Your task to perform on an android device: Go to settings Image 0: 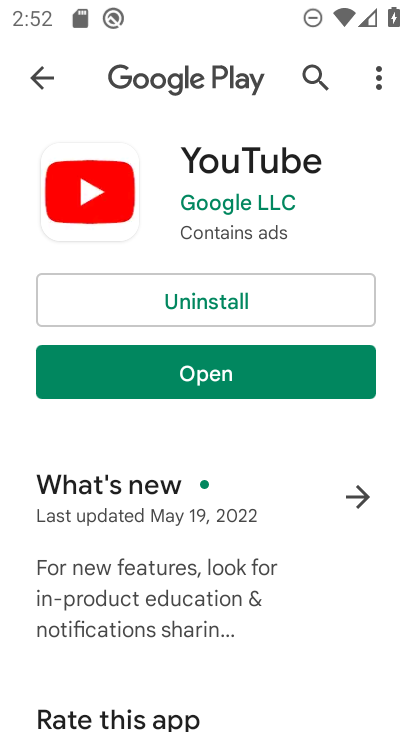
Step 0: press home button
Your task to perform on an android device: Go to settings Image 1: 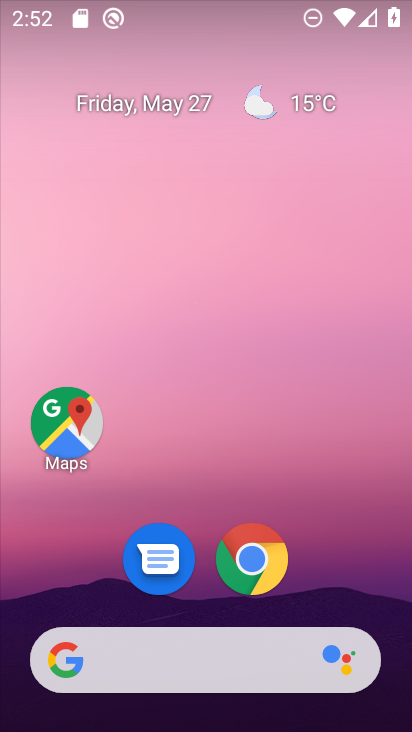
Step 1: drag from (164, 630) to (307, 13)
Your task to perform on an android device: Go to settings Image 2: 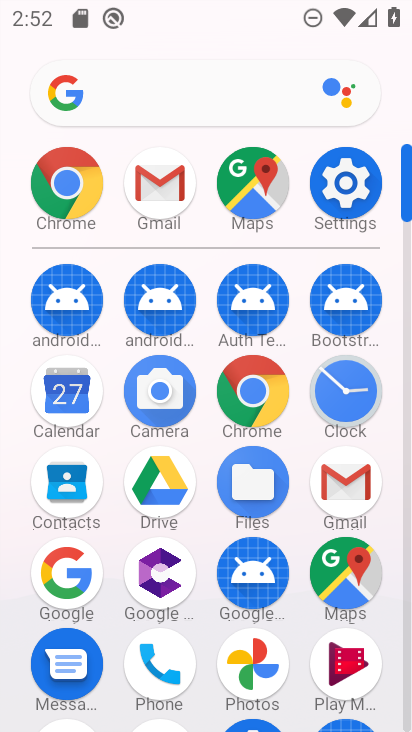
Step 2: drag from (271, 230) to (245, 24)
Your task to perform on an android device: Go to settings Image 3: 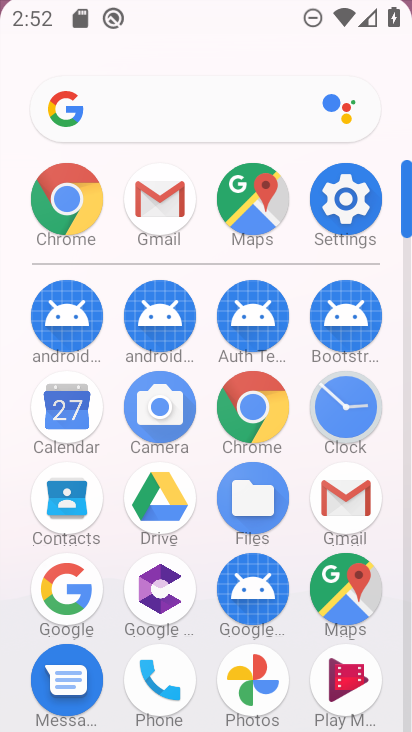
Step 3: click (326, 177)
Your task to perform on an android device: Go to settings Image 4: 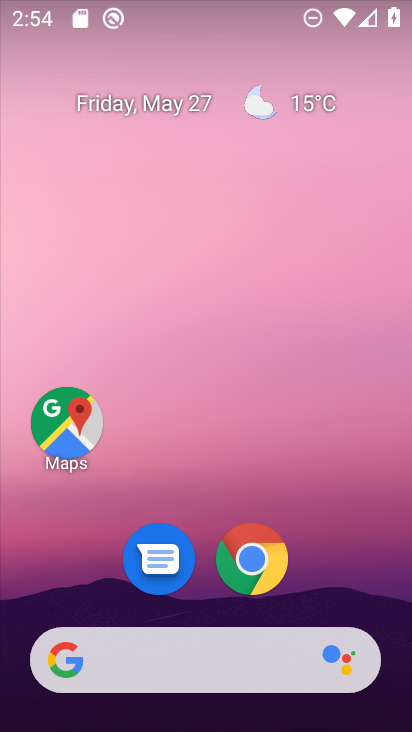
Step 4: drag from (311, 633) to (240, 104)
Your task to perform on an android device: Go to settings Image 5: 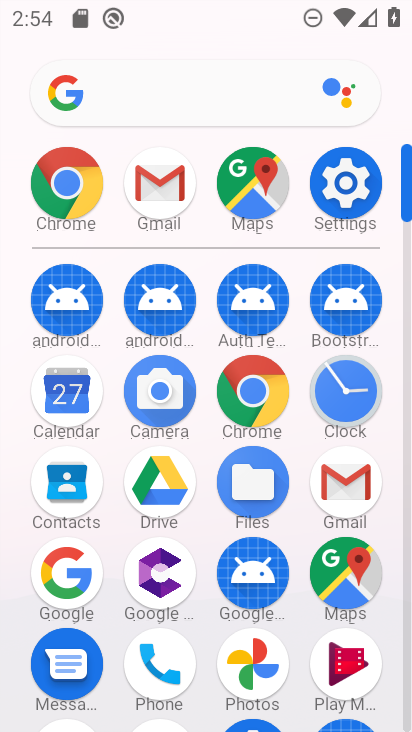
Step 5: click (344, 190)
Your task to perform on an android device: Go to settings Image 6: 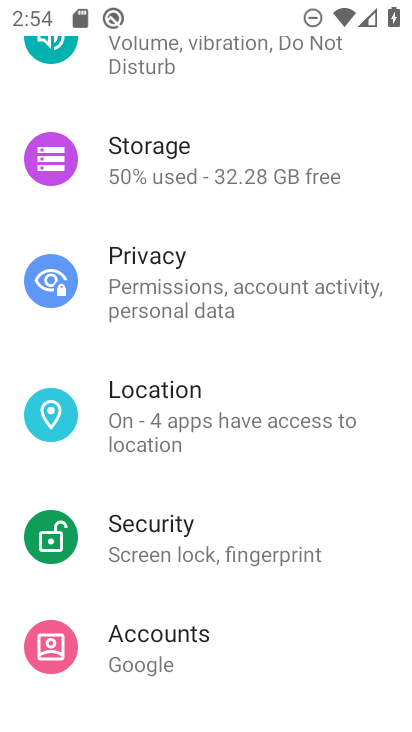
Step 6: task complete